Your task to perform on an android device: find which apps use the phone's location Image 0: 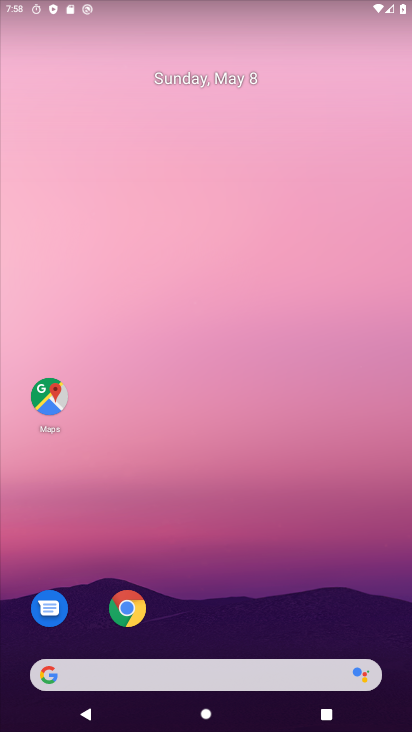
Step 0: drag from (308, 613) to (337, 66)
Your task to perform on an android device: find which apps use the phone's location Image 1: 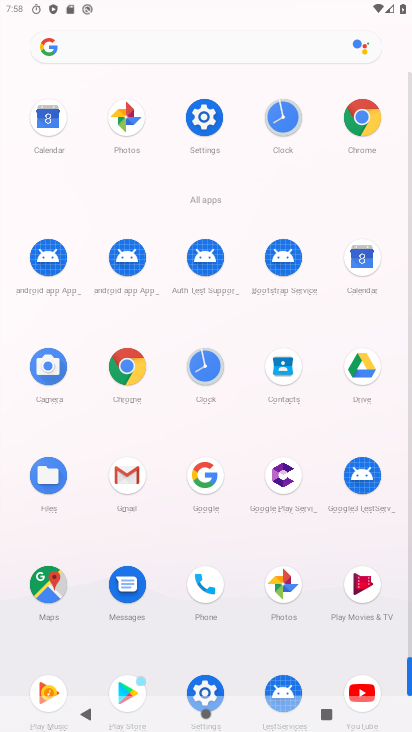
Step 1: drag from (231, 659) to (246, 474)
Your task to perform on an android device: find which apps use the phone's location Image 2: 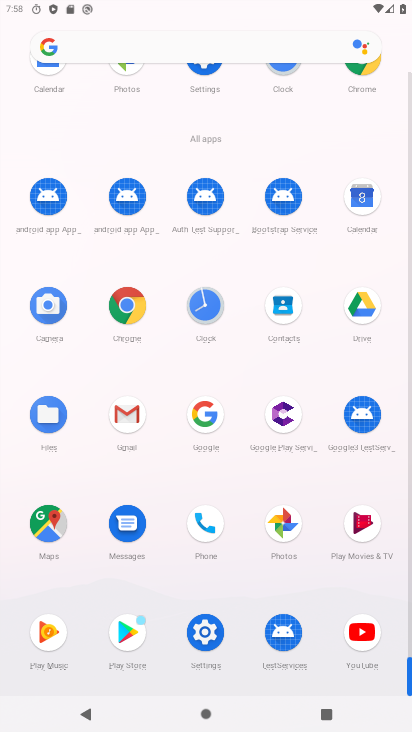
Step 2: click (200, 630)
Your task to perform on an android device: find which apps use the phone's location Image 3: 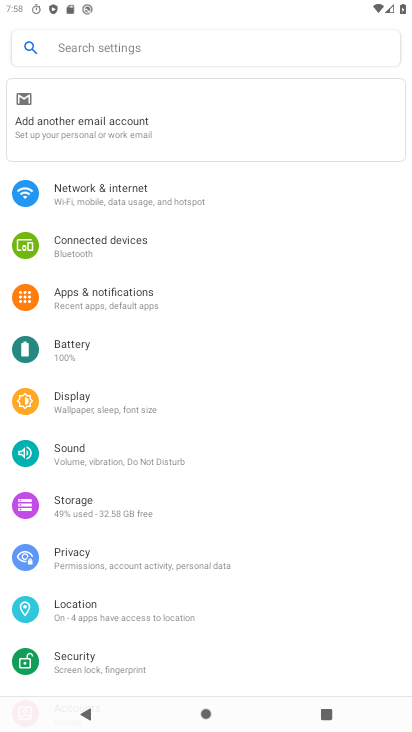
Step 3: click (118, 607)
Your task to perform on an android device: find which apps use the phone's location Image 4: 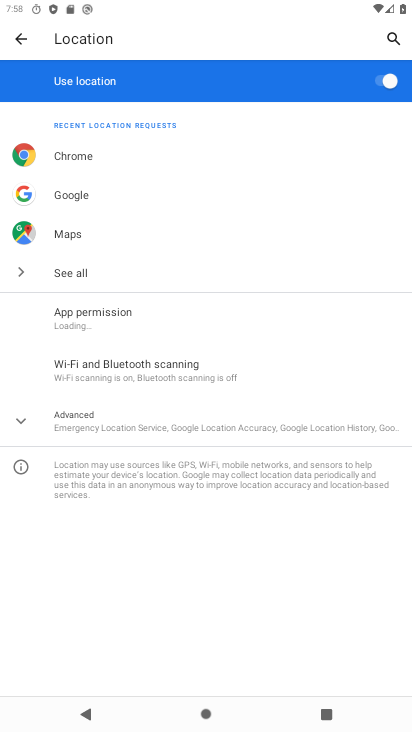
Step 4: click (101, 161)
Your task to perform on an android device: find which apps use the phone's location Image 5: 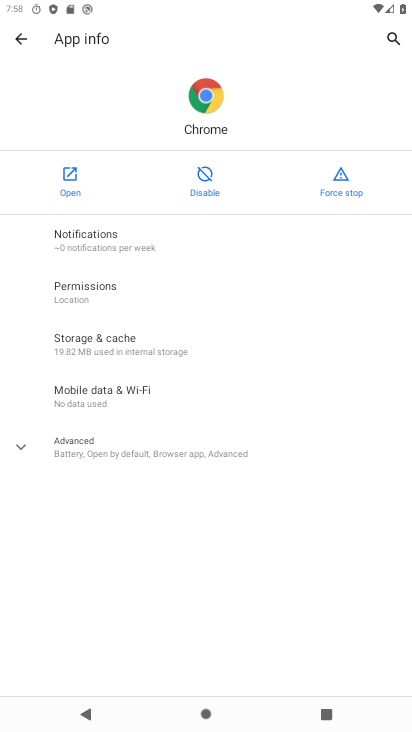
Step 5: click (116, 291)
Your task to perform on an android device: find which apps use the phone's location Image 6: 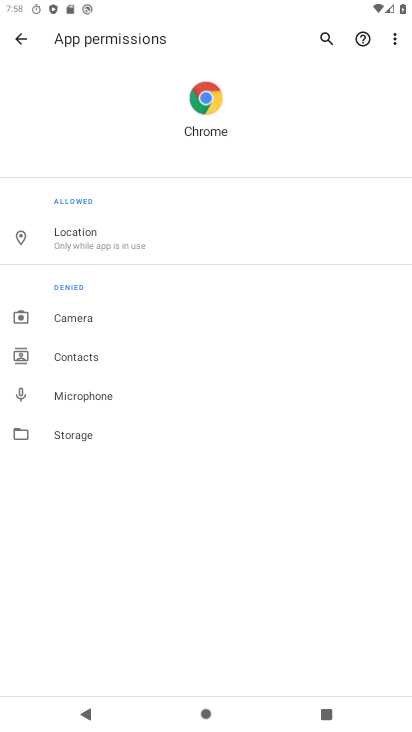
Step 6: task complete